Your task to perform on an android device: Open the map Image 0: 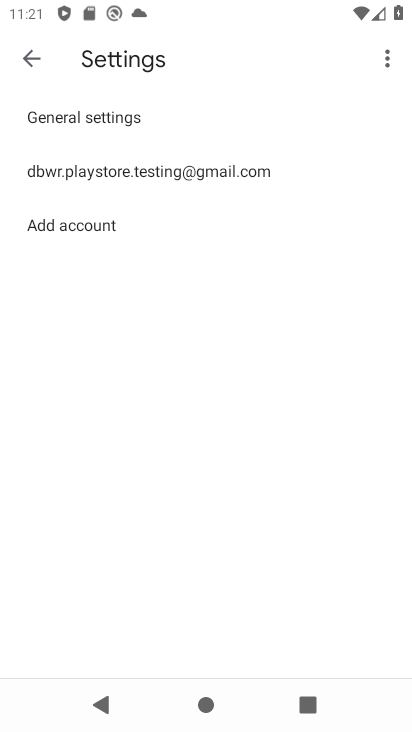
Step 0: press home button
Your task to perform on an android device: Open the map Image 1: 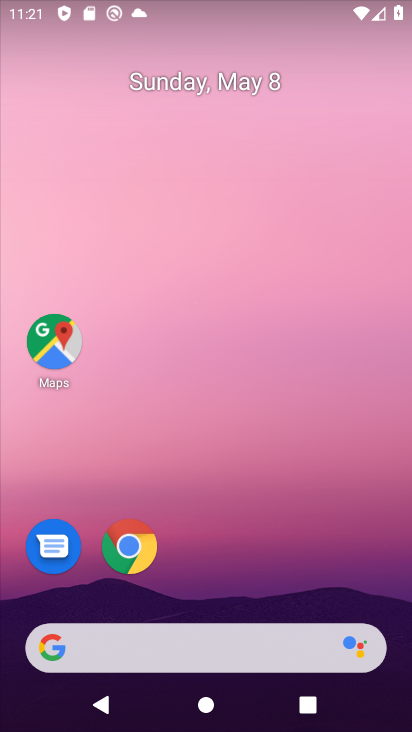
Step 1: click (64, 355)
Your task to perform on an android device: Open the map Image 2: 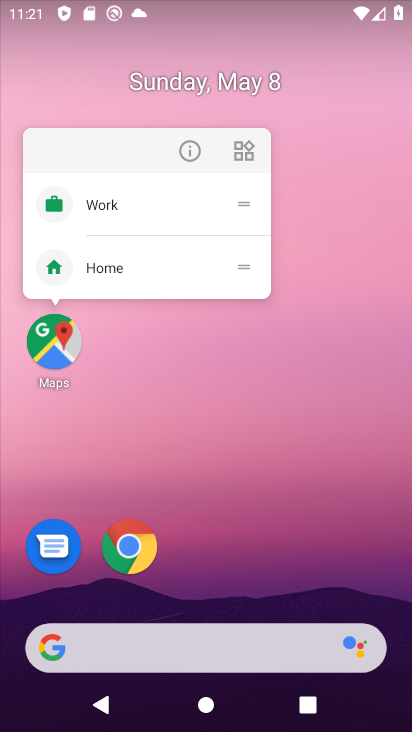
Step 2: click (40, 352)
Your task to perform on an android device: Open the map Image 3: 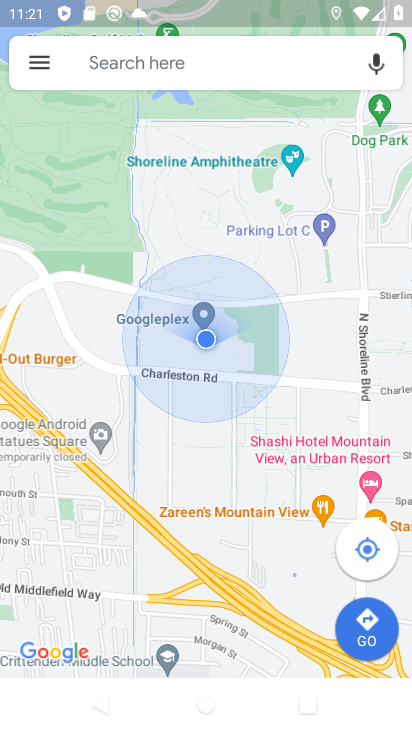
Step 3: task complete